Your task to perform on an android device: Open network settings Image 0: 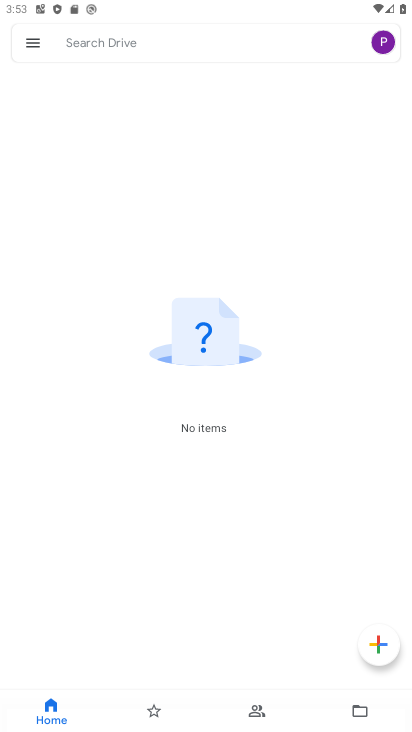
Step 0: press home button
Your task to perform on an android device: Open network settings Image 1: 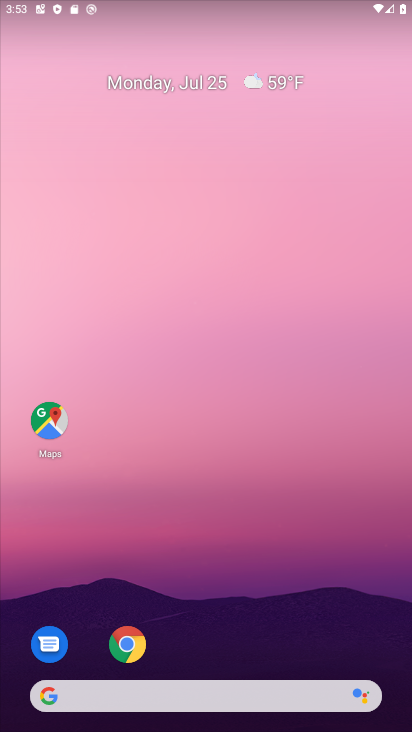
Step 1: drag from (240, 626) to (228, 294)
Your task to perform on an android device: Open network settings Image 2: 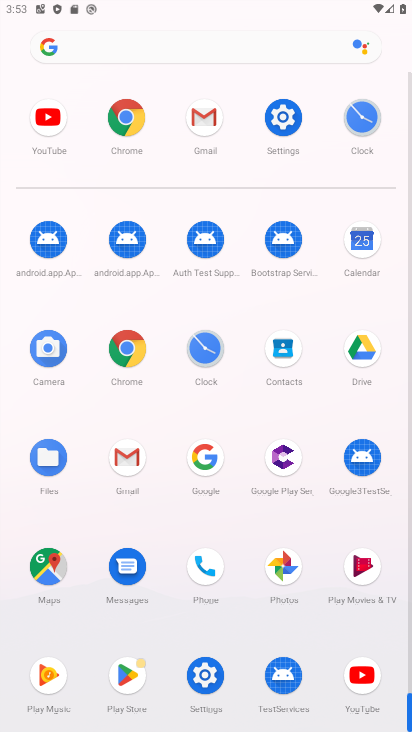
Step 2: click (287, 122)
Your task to perform on an android device: Open network settings Image 3: 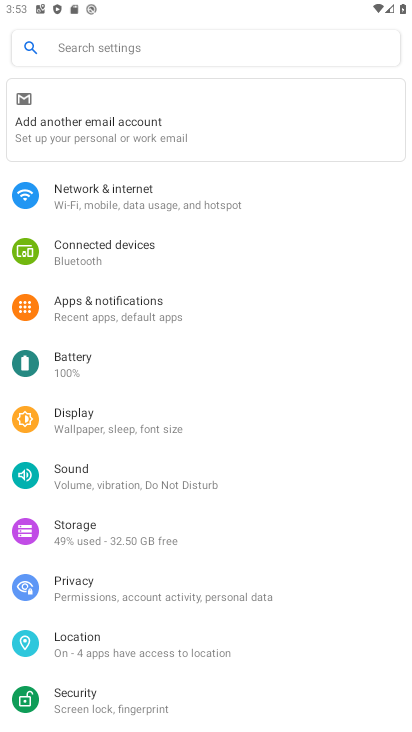
Step 3: click (144, 196)
Your task to perform on an android device: Open network settings Image 4: 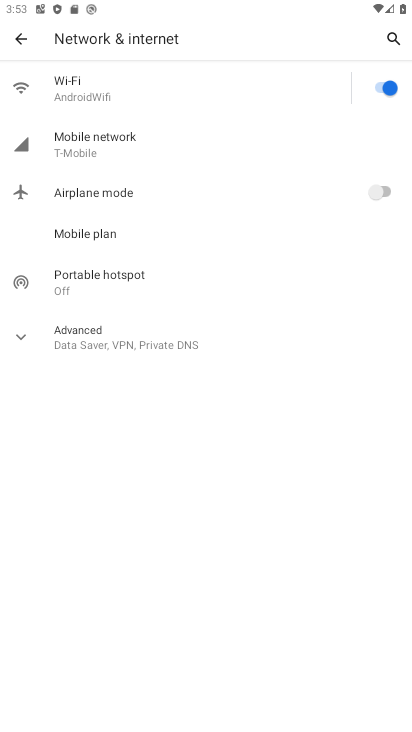
Step 4: click (99, 337)
Your task to perform on an android device: Open network settings Image 5: 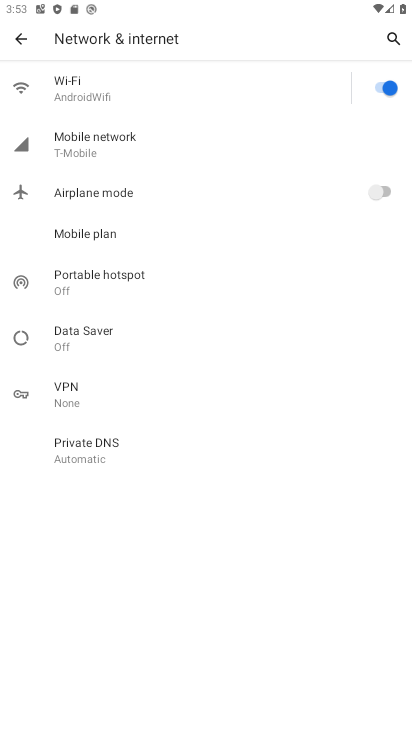
Step 5: click (114, 154)
Your task to perform on an android device: Open network settings Image 6: 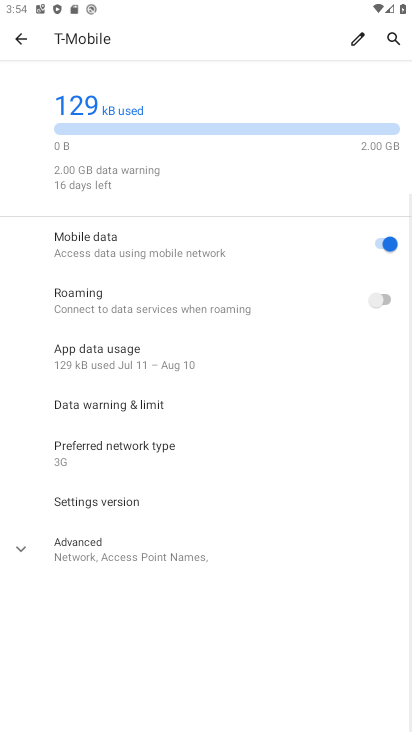
Step 6: click (217, 552)
Your task to perform on an android device: Open network settings Image 7: 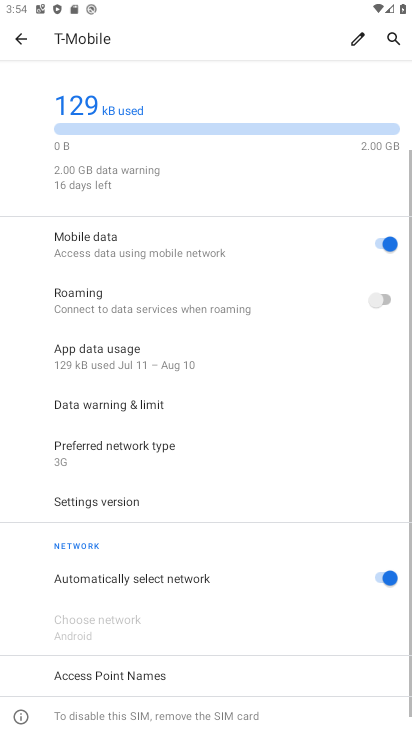
Step 7: task complete